Your task to perform on an android device: turn off priority inbox in the gmail app Image 0: 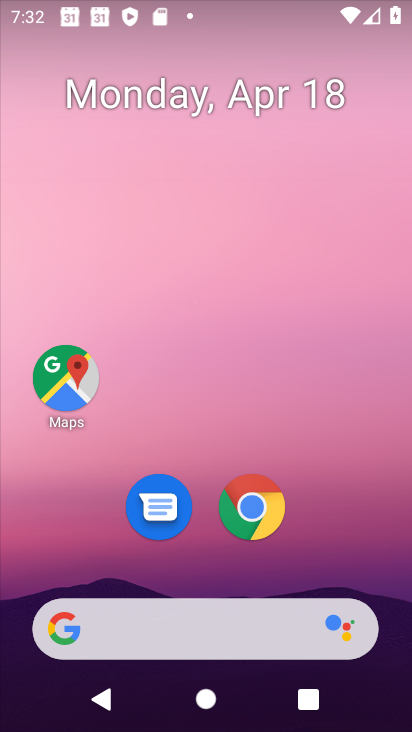
Step 0: click (319, 82)
Your task to perform on an android device: turn off priority inbox in the gmail app Image 1: 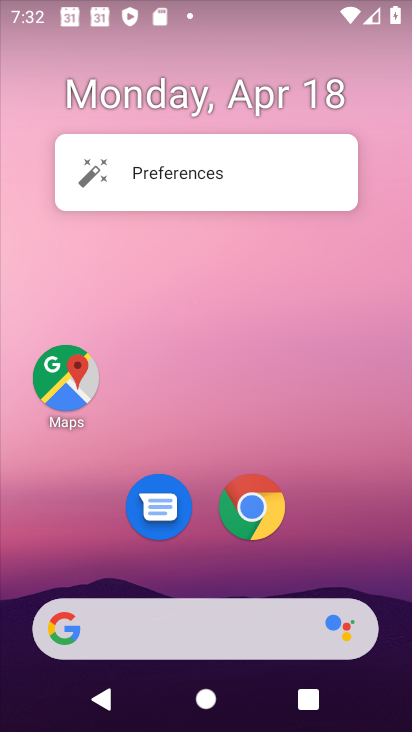
Step 1: click (250, 343)
Your task to perform on an android device: turn off priority inbox in the gmail app Image 2: 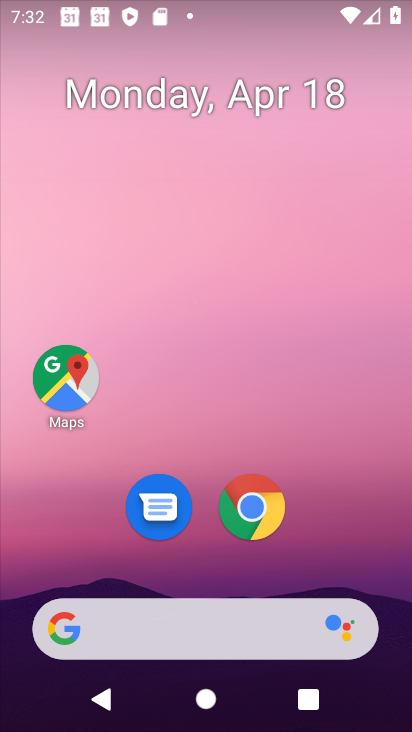
Step 2: click (0, 503)
Your task to perform on an android device: turn off priority inbox in the gmail app Image 3: 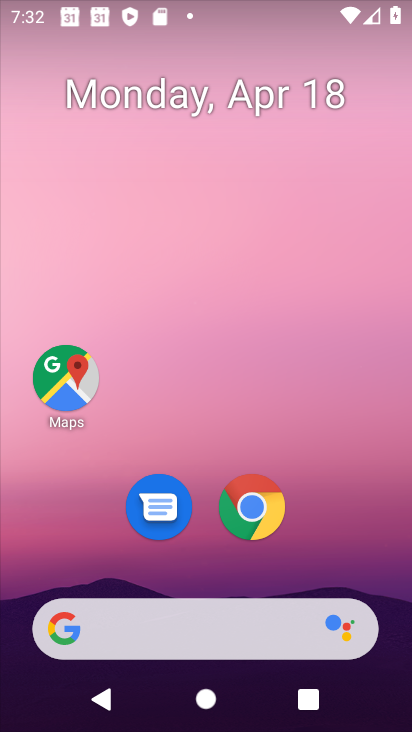
Step 3: drag from (4, 492) to (256, 106)
Your task to perform on an android device: turn off priority inbox in the gmail app Image 4: 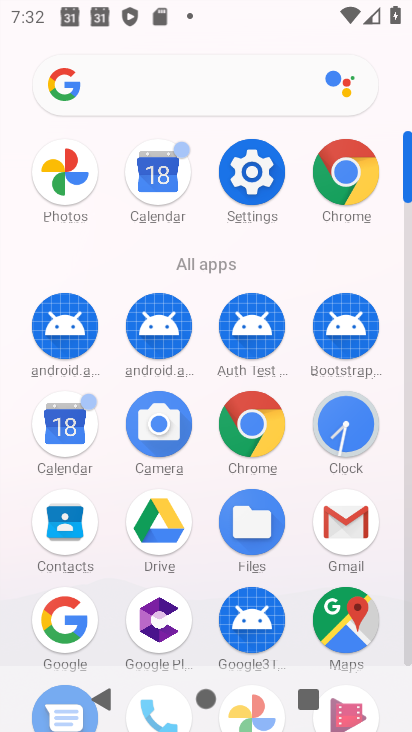
Step 4: click (357, 498)
Your task to perform on an android device: turn off priority inbox in the gmail app Image 5: 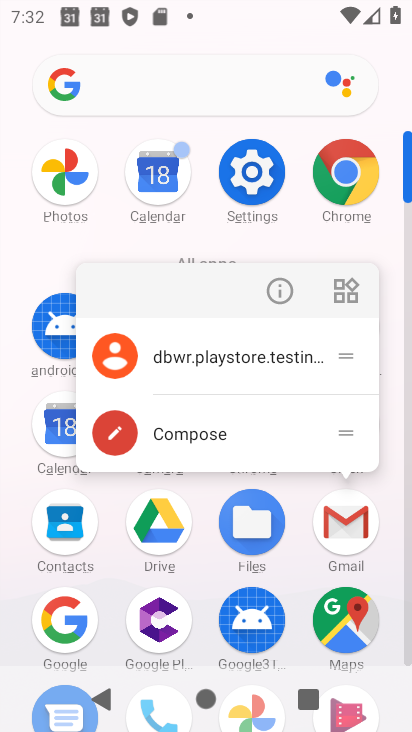
Step 5: click (357, 498)
Your task to perform on an android device: turn off priority inbox in the gmail app Image 6: 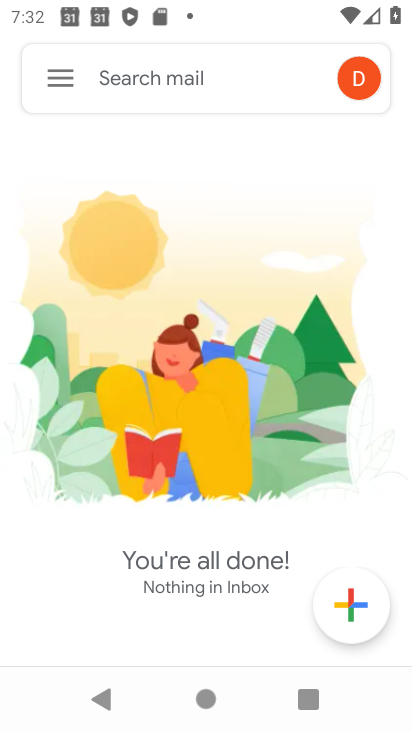
Step 6: click (60, 76)
Your task to perform on an android device: turn off priority inbox in the gmail app Image 7: 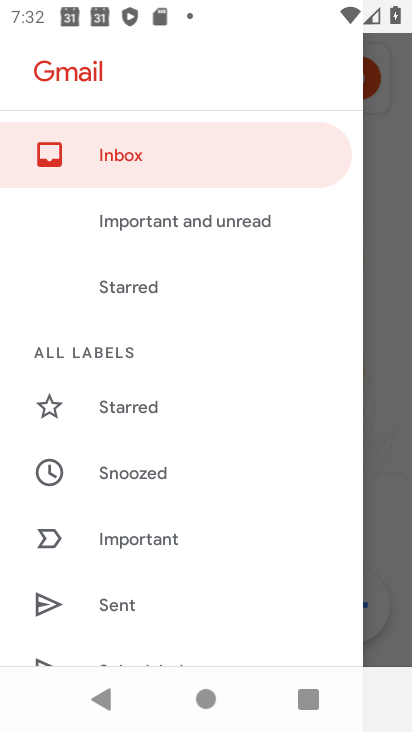
Step 7: drag from (81, 609) to (176, 145)
Your task to perform on an android device: turn off priority inbox in the gmail app Image 8: 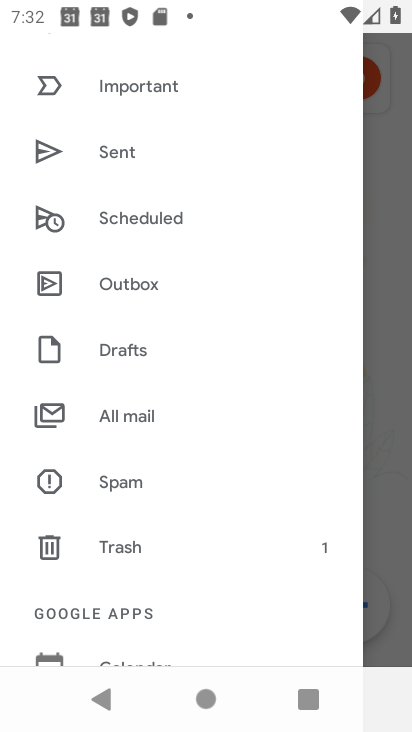
Step 8: drag from (29, 622) to (171, 223)
Your task to perform on an android device: turn off priority inbox in the gmail app Image 9: 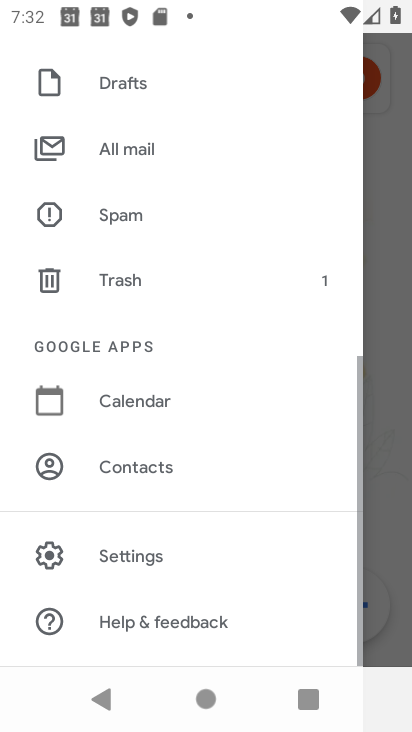
Step 9: click (151, 567)
Your task to perform on an android device: turn off priority inbox in the gmail app Image 10: 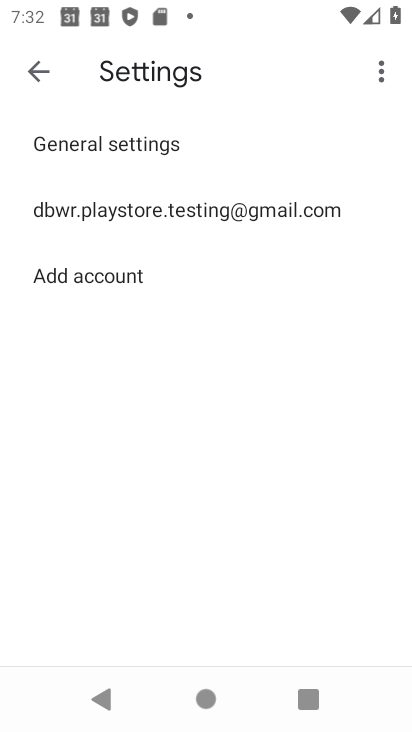
Step 10: click (211, 220)
Your task to perform on an android device: turn off priority inbox in the gmail app Image 11: 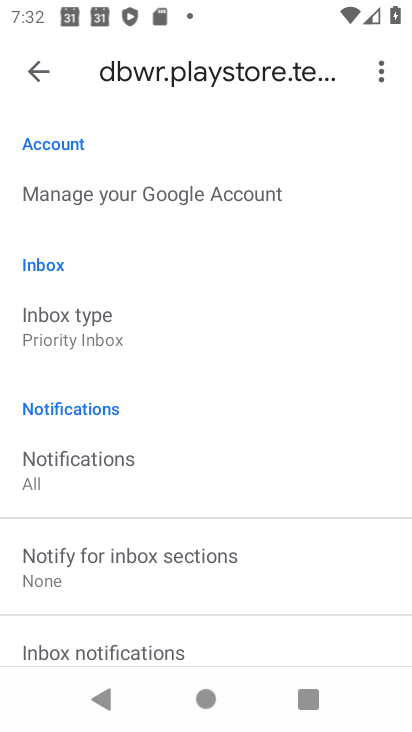
Step 11: drag from (158, 584) to (226, 296)
Your task to perform on an android device: turn off priority inbox in the gmail app Image 12: 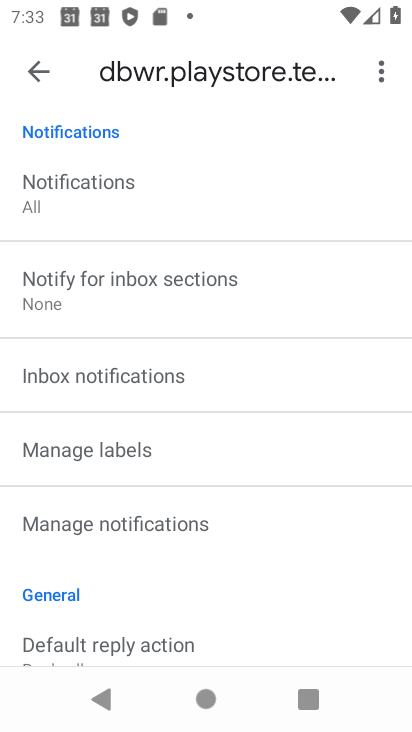
Step 12: drag from (208, 174) to (187, 581)
Your task to perform on an android device: turn off priority inbox in the gmail app Image 13: 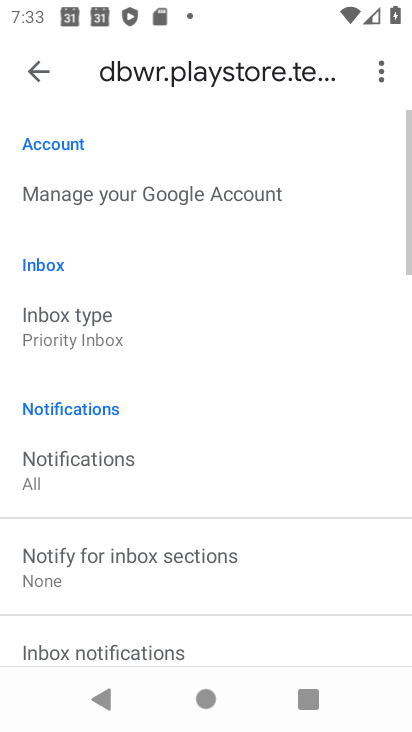
Step 13: click (165, 330)
Your task to perform on an android device: turn off priority inbox in the gmail app Image 14: 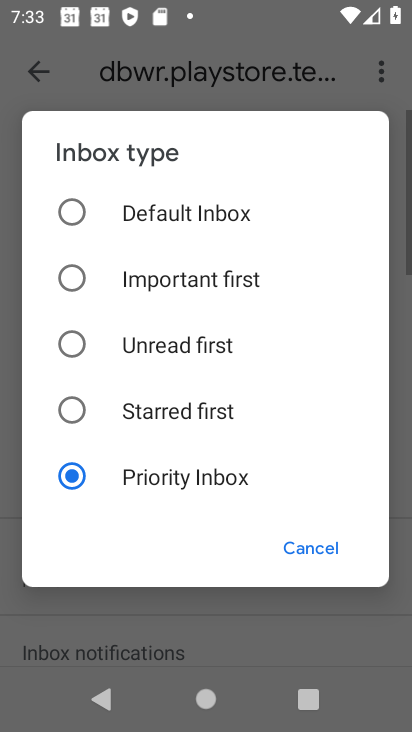
Step 14: click (165, 416)
Your task to perform on an android device: turn off priority inbox in the gmail app Image 15: 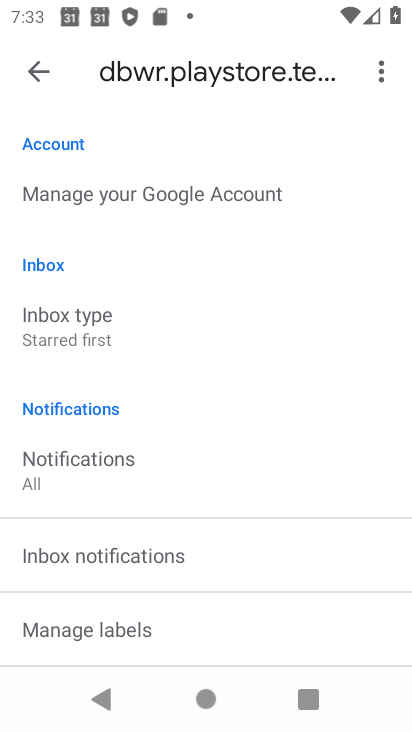
Step 15: task complete